Your task to perform on an android device: Open CNN.com Image 0: 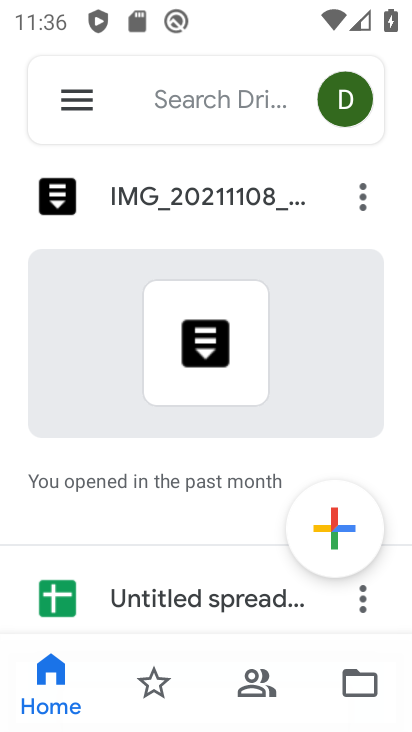
Step 0: press home button
Your task to perform on an android device: Open CNN.com Image 1: 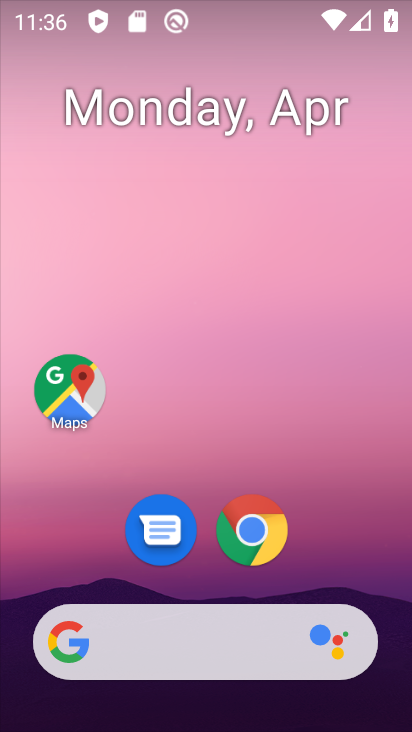
Step 1: click (267, 536)
Your task to perform on an android device: Open CNN.com Image 2: 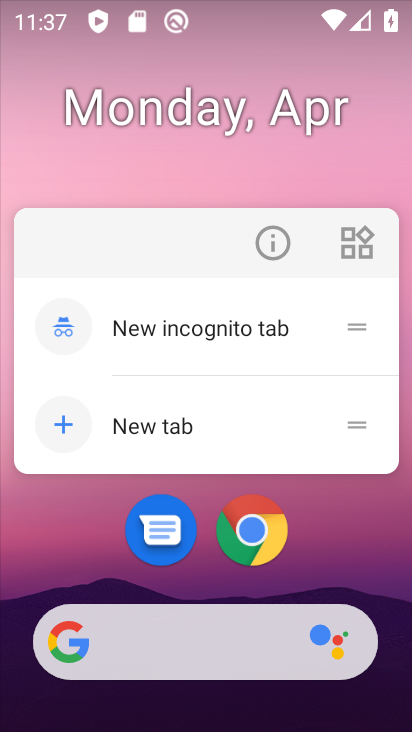
Step 2: click (258, 543)
Your task to perform on an android device: Open CNN.com Image 3: 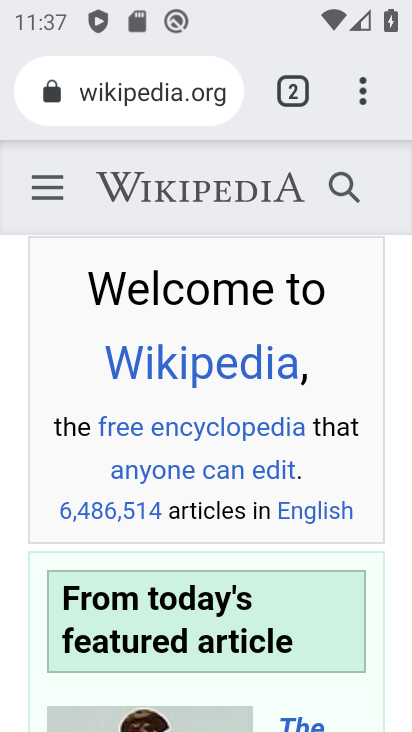
Step 3: click (189, 85)
Your task to perform on an android device: Open CNN.com Image 4: 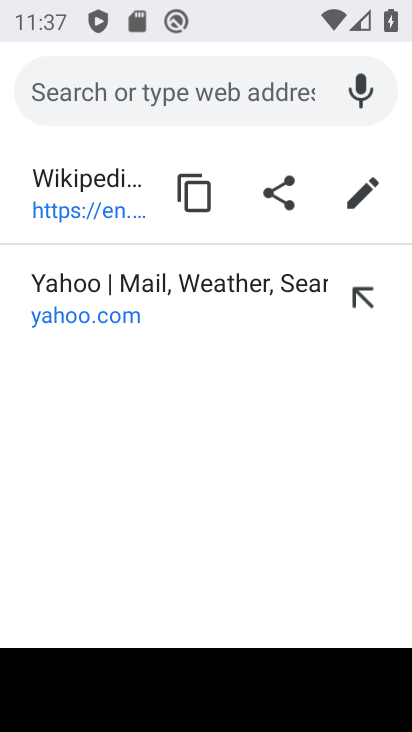
Step 4: type "CNN.com"
Your task to perform on an android device: Open CNN.com Image 5: 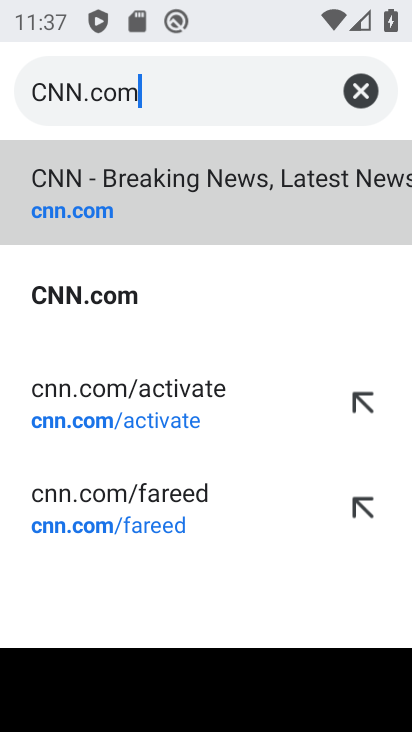
Step 5: type ""
Your task to perform on an android device: Open CNN.com Image 6: 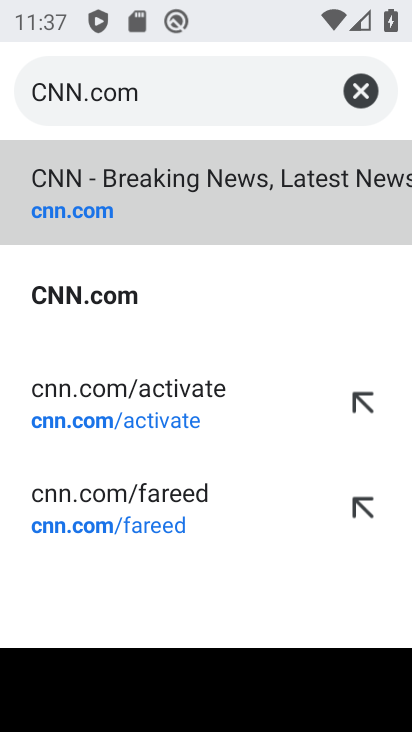
Step 6: click (188, 219)
Your task to perform on an android device: Open CNN.com Image 7: 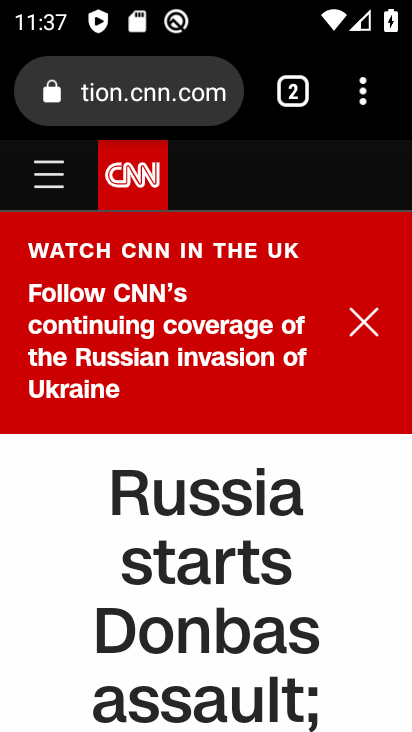
Step 7: task complete